Your task to perform on an android device: Is it going to rain this weekend? Image 0: 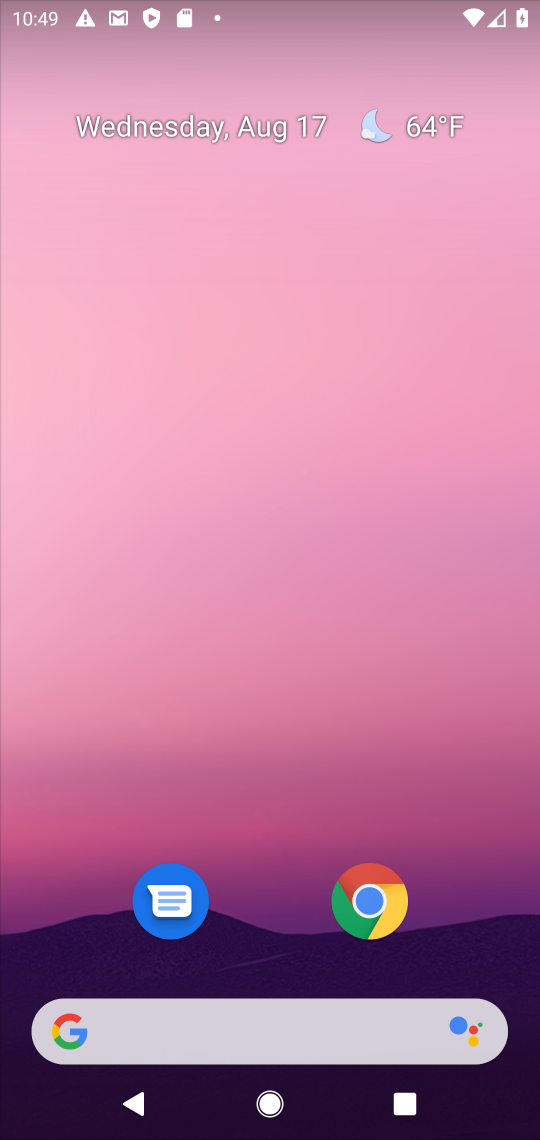
Step 0: press home button
Your task to perform on an android device: Is it going to rain this weekend? Image 1: 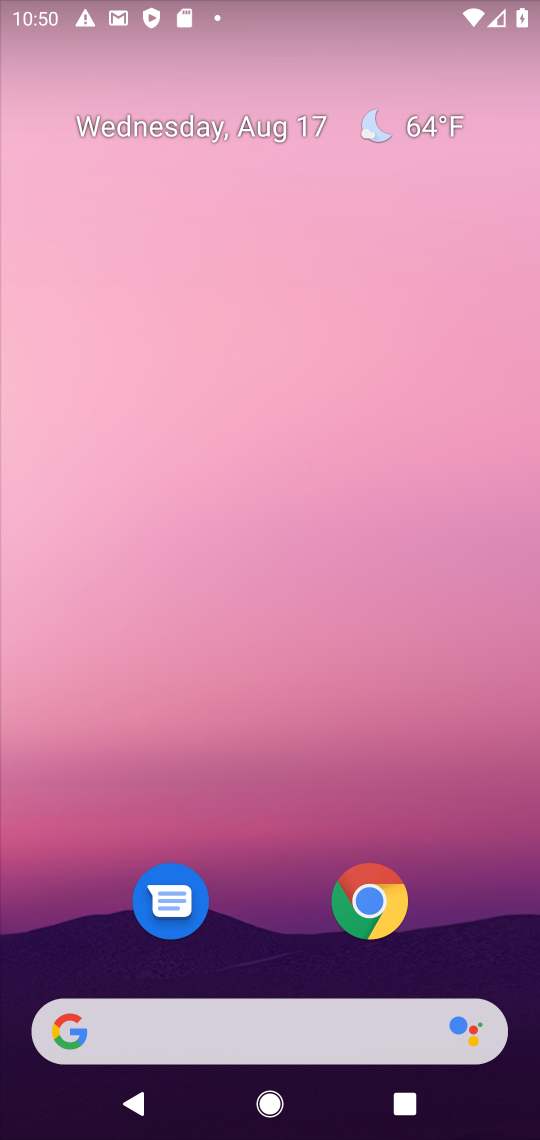
Step 1: click (62, 1031)
Your task to perform on an android device: Is it going to rain this weekend? Image 2: 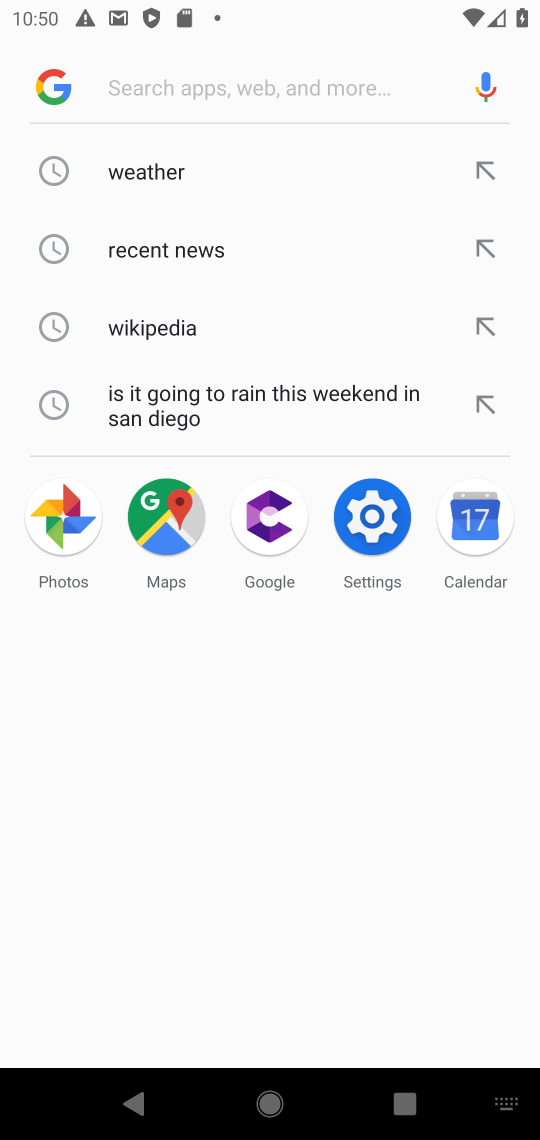
Step 2: type "s it going to rain this weekend?"
Your task to perform on an android device: Is it going to rain this weekend? Image 3: 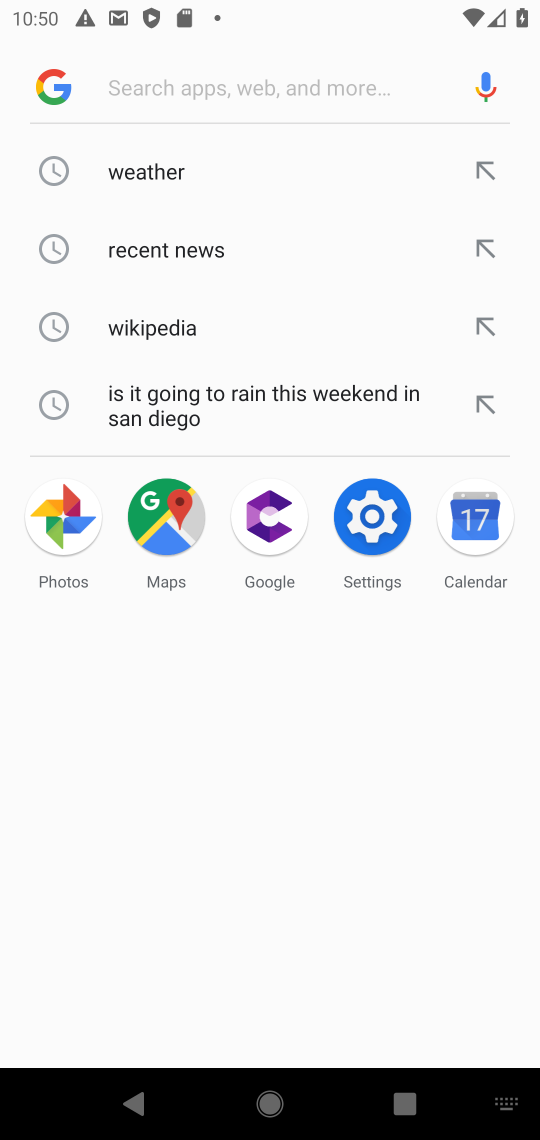
Step 3: click (236, 89)
Your task to perform on an android device: Is it going to rain this weekend? Image 4: 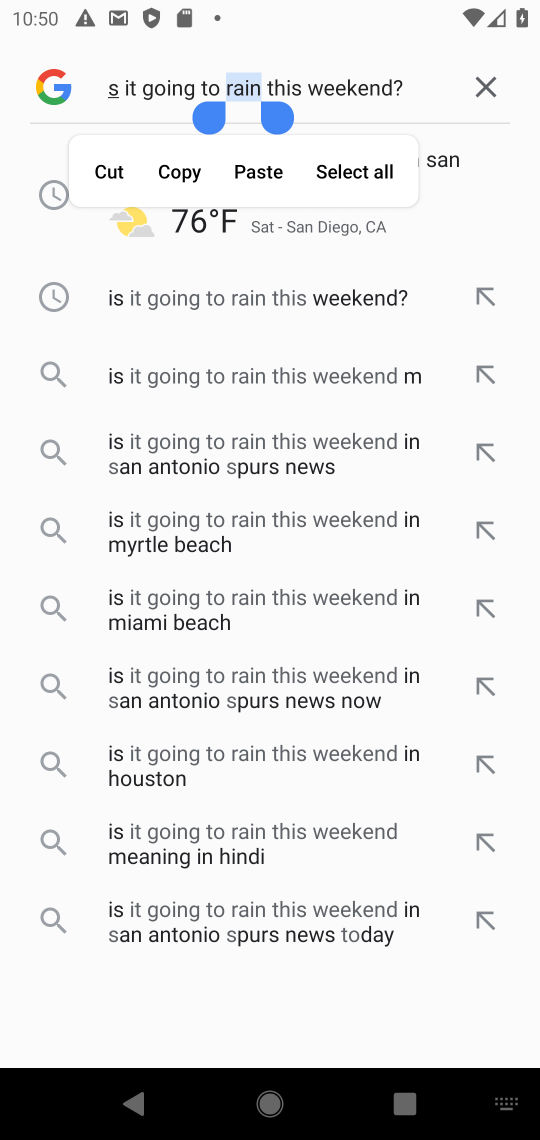
Step 4: press enter
Your task to perform on an android device: Is it going to rain this weekend? Image 5: 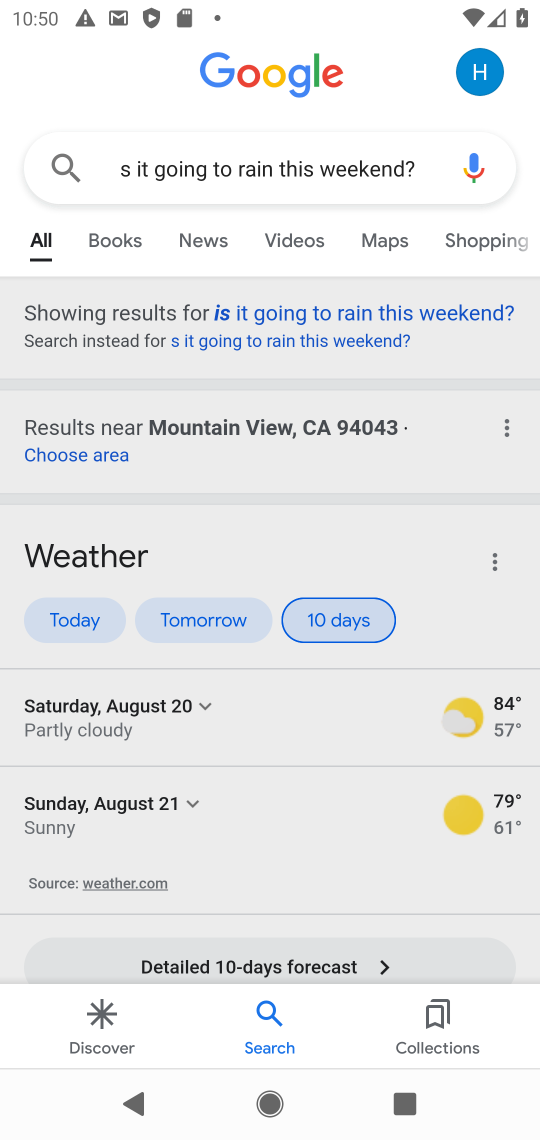
Step 5: task complete